Your task to perform on an android device: check google app version Image 0: 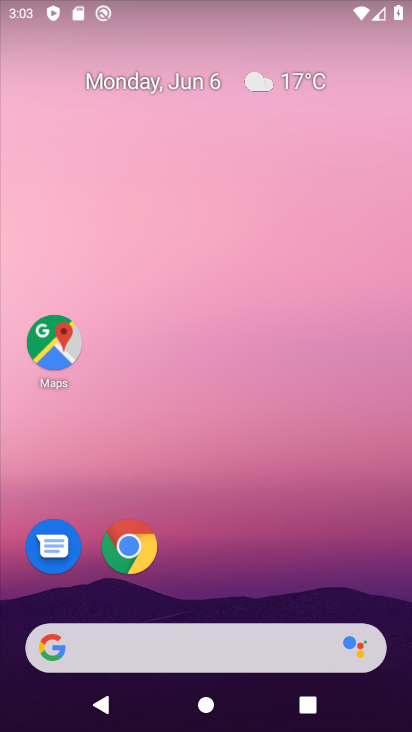
Step 0: drag from (273, 469) to (329, 69)
Your task to perform on an android device: check google app version Image 1: 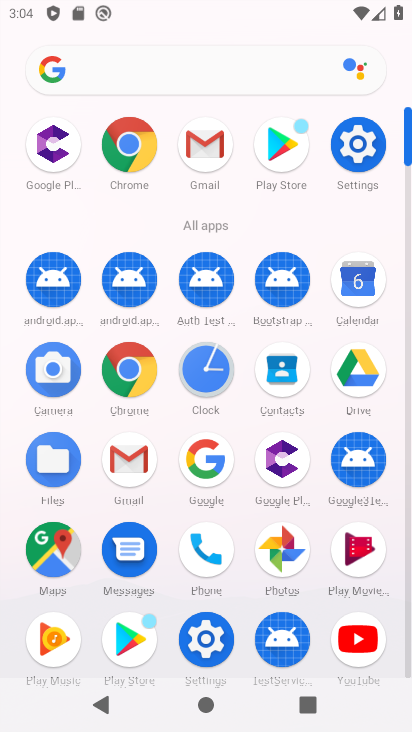
Step 1: click (290, 549)
Your task to perform on an android device: check google app version Image 2: 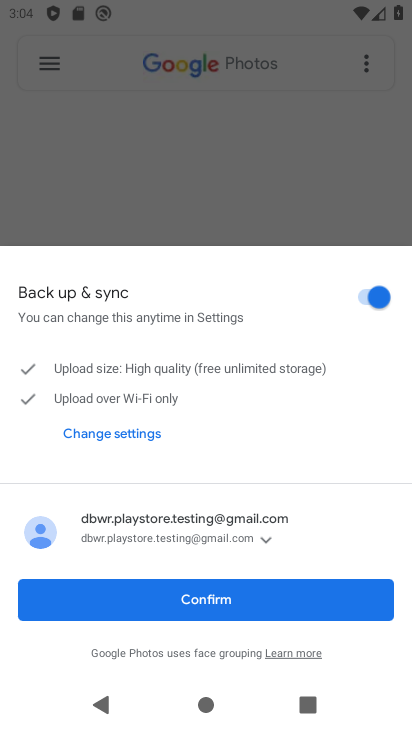
Step 2: click (199, 595)
Your task to perform on an android device: check google app version Image 3: 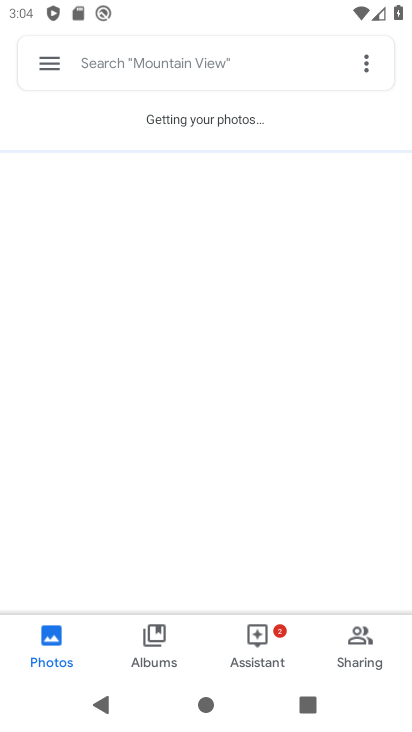
Step 3: click (48, 57)
Your task to perform on an android device: check google app version Image 4: 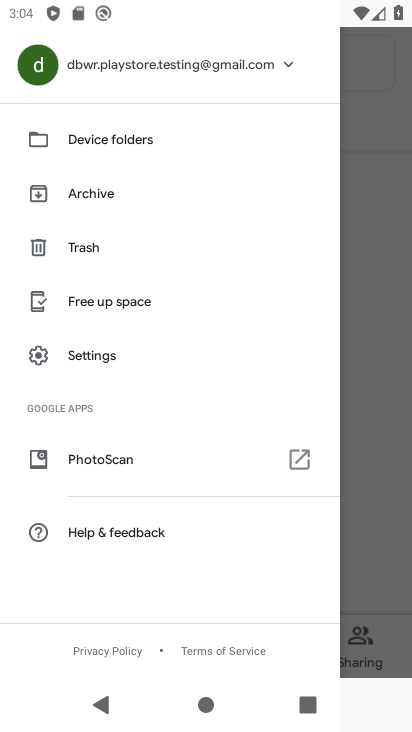
Step 4: drag from (122, 568) to (211, 146)
Your task to perform on an android device: check google app version Image 5: 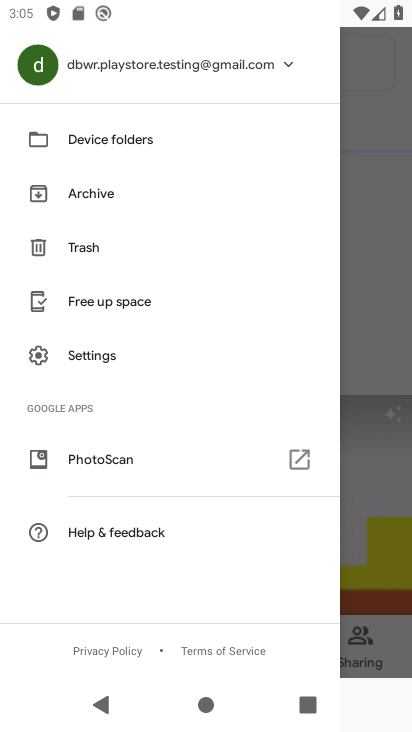
Step 5: click (80, 367)
Your task to perform on an android device: check google app version Image 6: 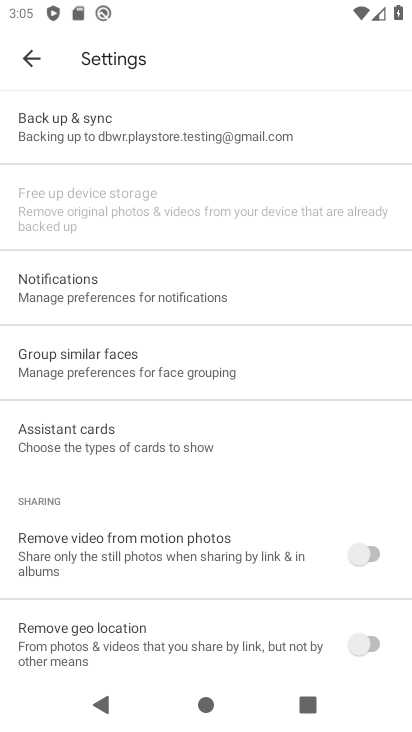
Step 6: drag from (176, 586) to (237, 87)
Your task to perform on an android device: check google app version Image 7: 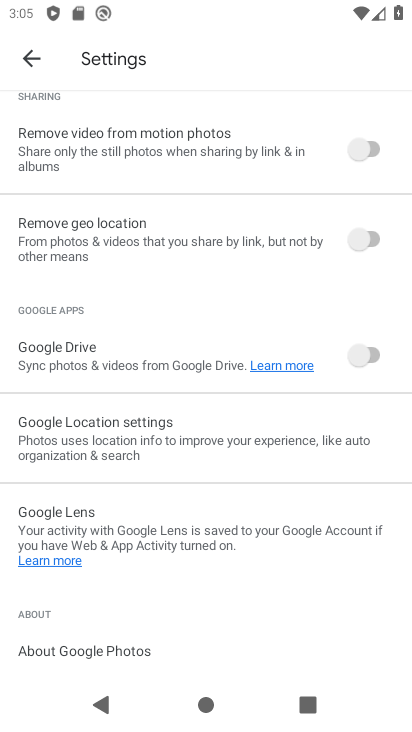
Step 7: drag from (184, 607) to (294, 78)
Your task to perform on an android device: check google app version Image 8: 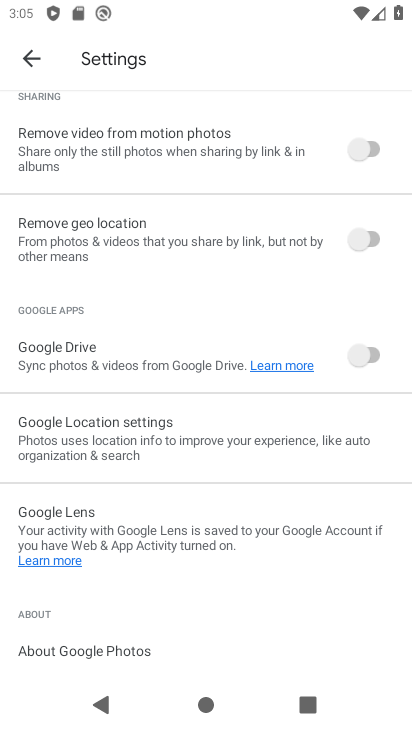
Step 8: drag from (294, 95) to (262, 670)
Your task to perform on an android device: check google app version Image 9: 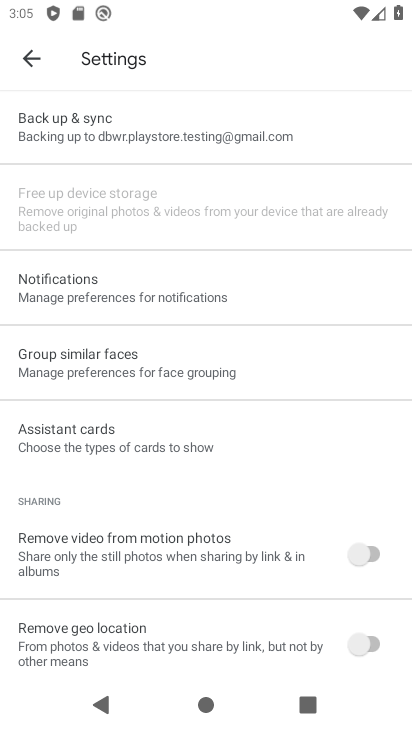
Step 9: drag from (263, 626) to (286, 77)
Your task to perform on an android device: check google app version Image 10: 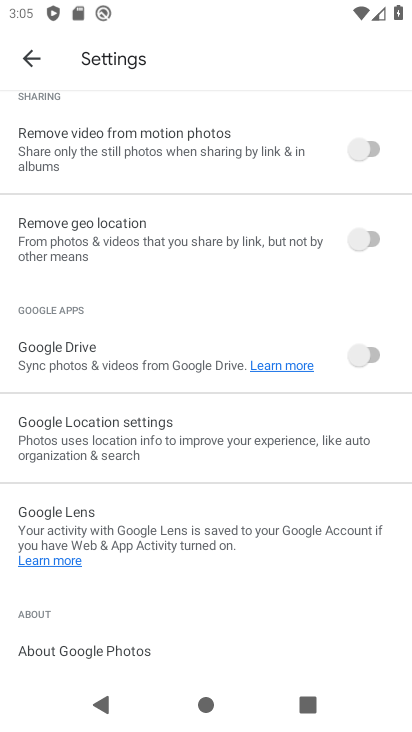
Step 10: drag from (196, 583) to (302, 8)
Your task to perform on an android device: check google app version Image 11: 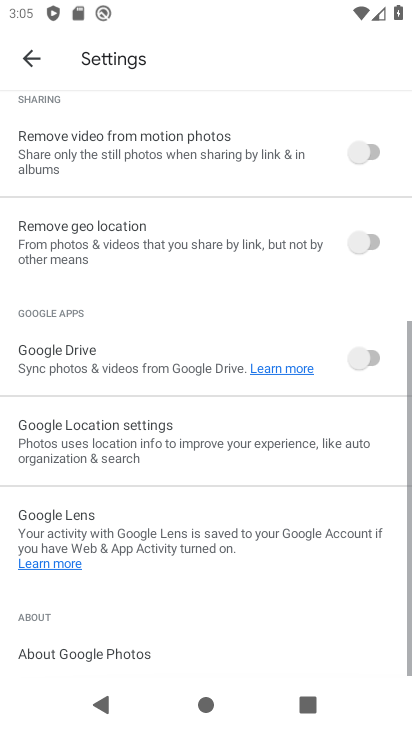
Step 11: drag from (201, 343) to (244, 696)
Your task to perform on an android device: check google app version Image 12: 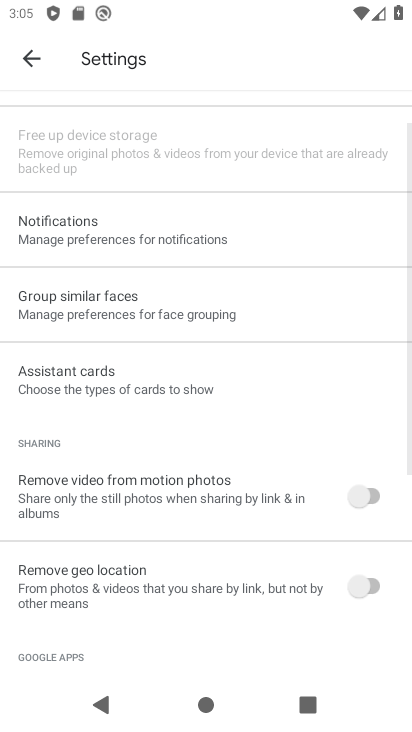
Step 12: drag from (197, 615) to (272, 23)
Your task to perform on an android device: check google app version Image 13: 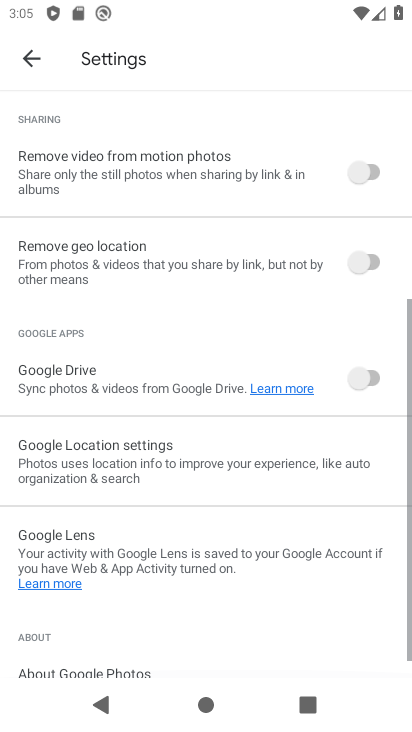
Step 13: drag from (175, 603) to (265, 1)
Your task to perform on an android device: check google app version Image 14: 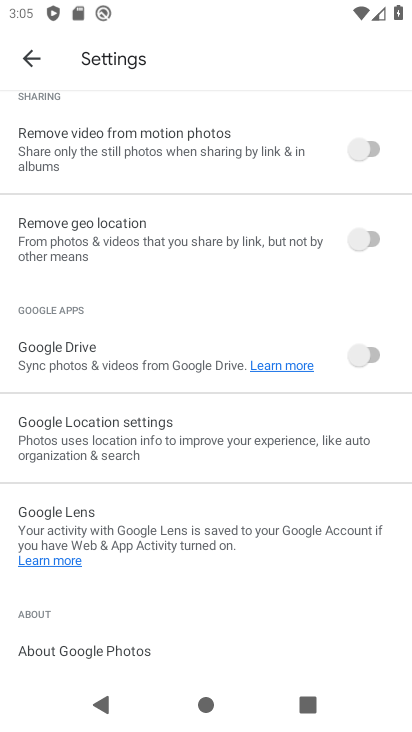
Step 14: click (135, 646)
Your task to perform on an android device: check google app version Image 15: 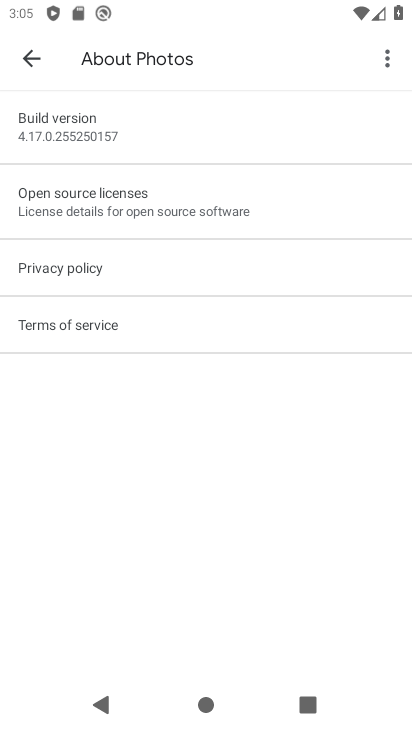
Step 15: click (71, 133)
Your task to perform on an android device: check google app version Image 16: 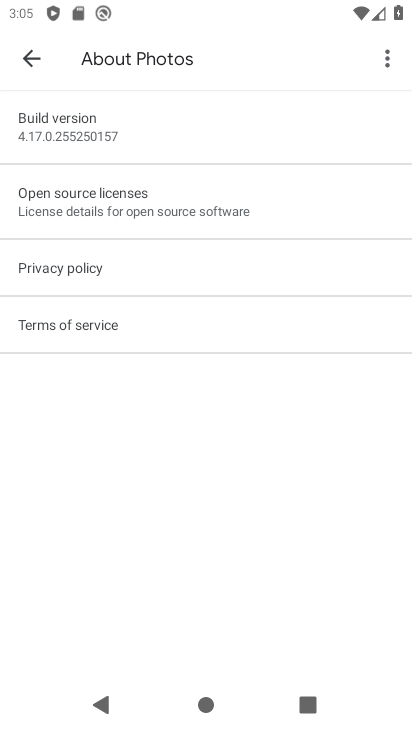
Step 16: task complete